Your task to perform on an android device: change the clock style Image 0: 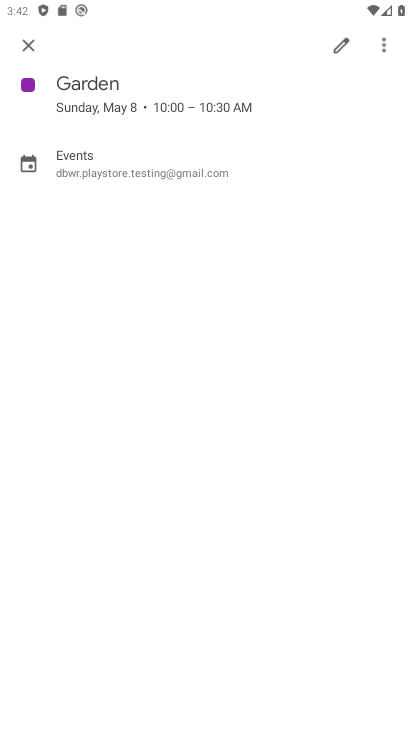
Step 0: press back button
Your task to perform on an android device: change the clock style Image 1: 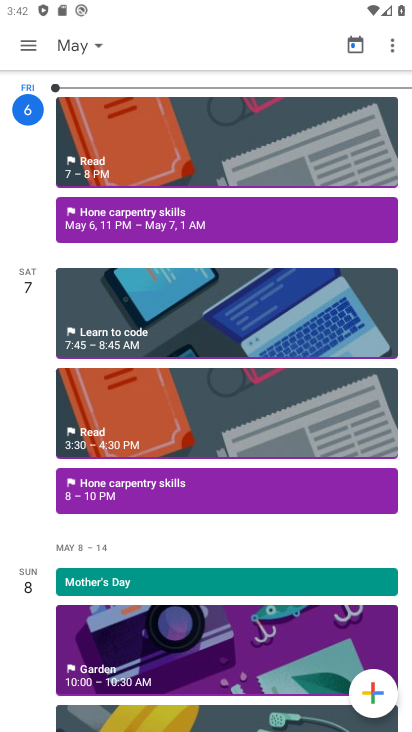
Step 1: press back button
Your task to perform on an android device: change the clock style Image 2: 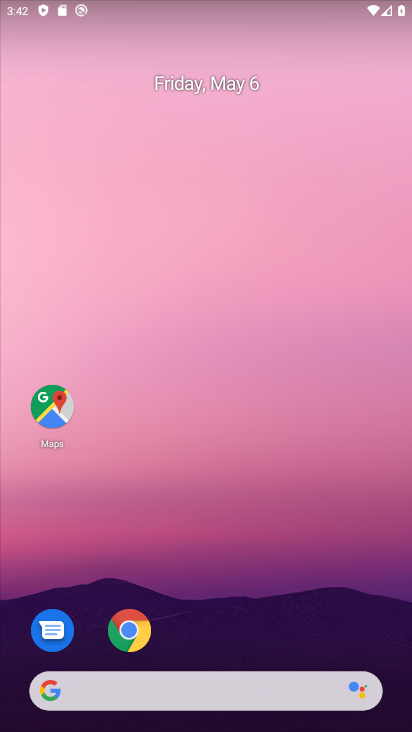
Step 2: drag from (257, 627) to (335, 61)
Your task to perform on an android device: change the clock style Image 3: 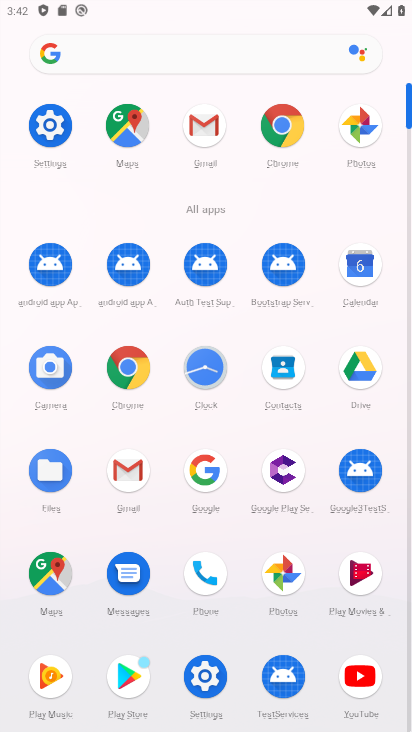
Step 3: click (209, 372)
Your task to perform on an android device: change the clock style Image 4: 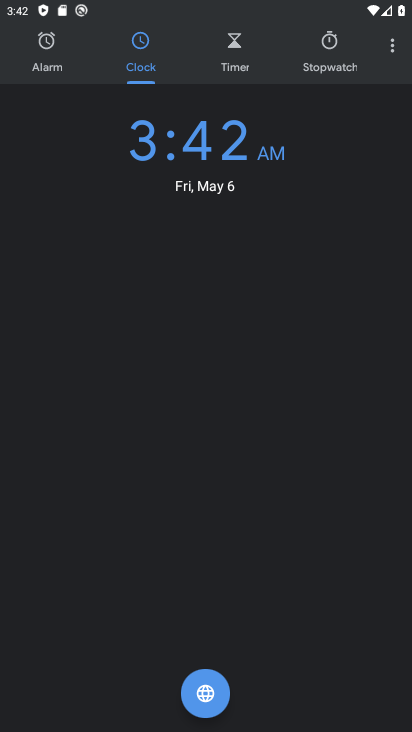
Step 4: click (393, 45)
Your task to perform on an android device: change the clock style Image 5: 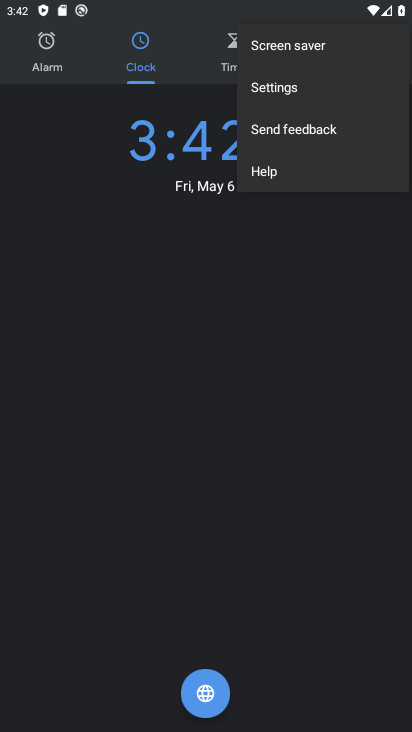
Step 5: click (265, 88)
Your task to perform on an android device: change the clock style Image 6: 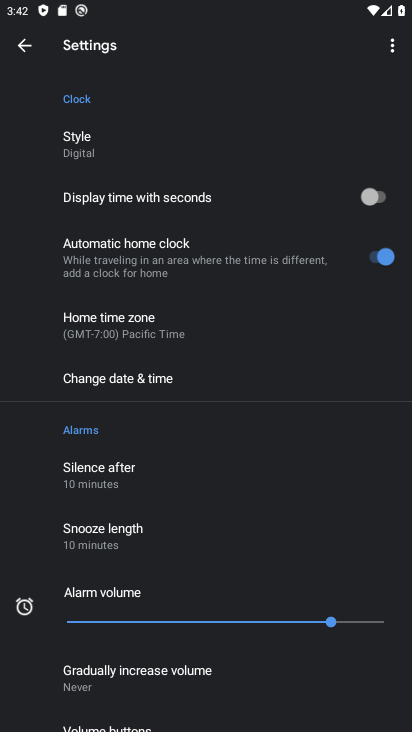
Step 6: click (166, 140)
Your task to perform on an android device: change the clock style Image 7: 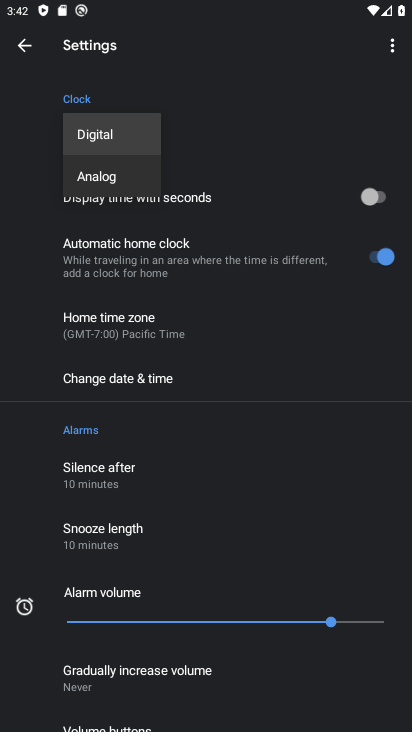
Step 7: click (131, 178)
Your task to perform on an android device: change the clock style Image 8: 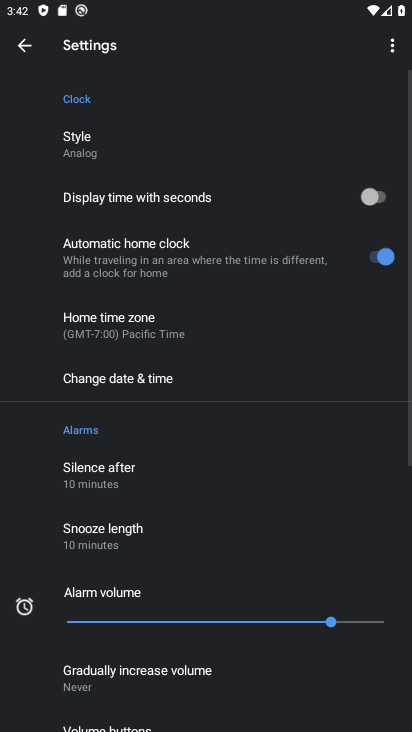
Step 8: task complete